Your task to perform on an android device: What's the weather going to be this weekend? Image 0: 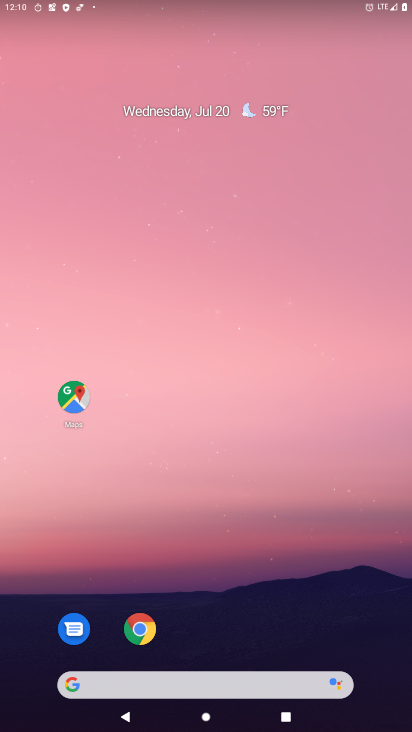
Step 0: drag from (223, 599) to (141, 79)
Your task to perform on an android device: What's the weather going to be this weekend? Image 1: 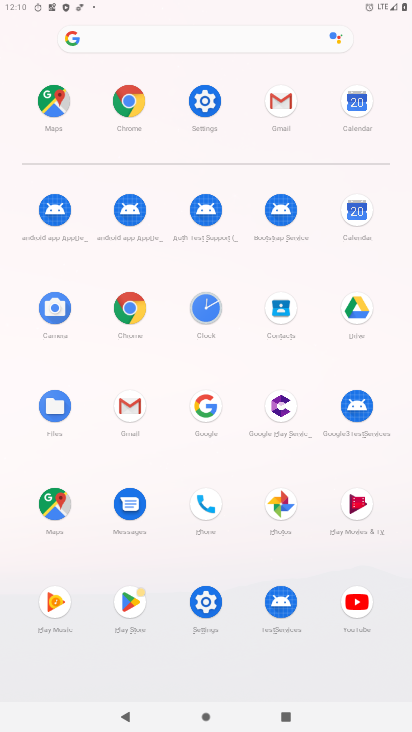
Step 1: click (204, 411)
Your task to perform on an android device: What's the weather going to be this weekend? Image 2: 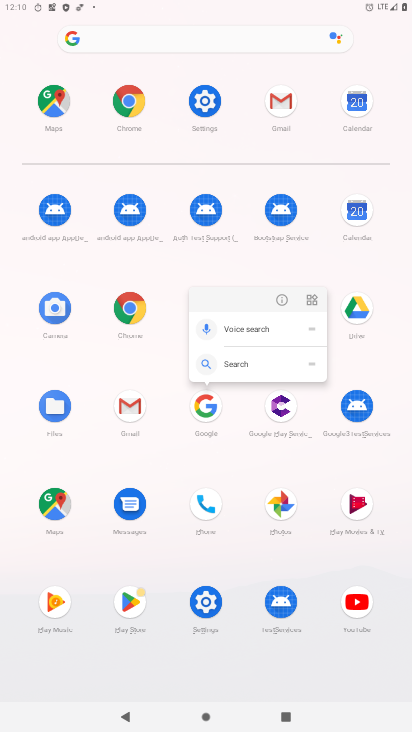
Step 2: click (204, 411)
Your task to perform on an android device: What's the weather going to be this weekend? Image 3: 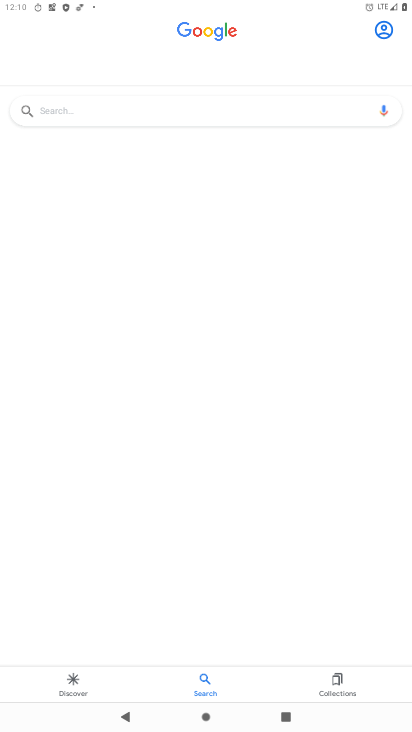
Step 3: drag from (179, 266) to (188, 541)
Your task to perform on an android device: What's the weather going to be this weekend? Image 4: 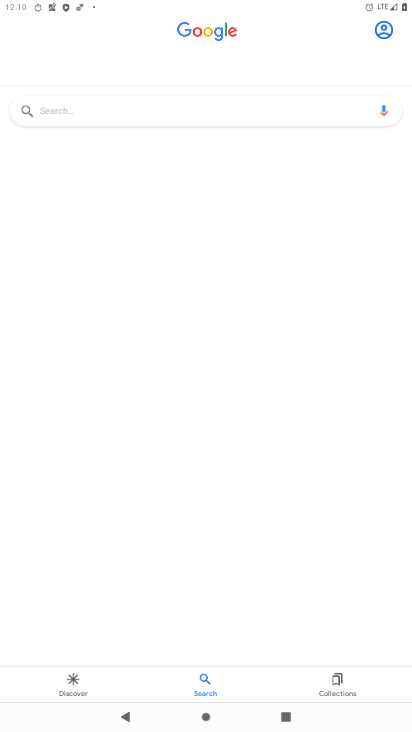
Step 4: click (125, 112)
Your task to perform on an android device: What's the weather going to be this weekend? Image 5: 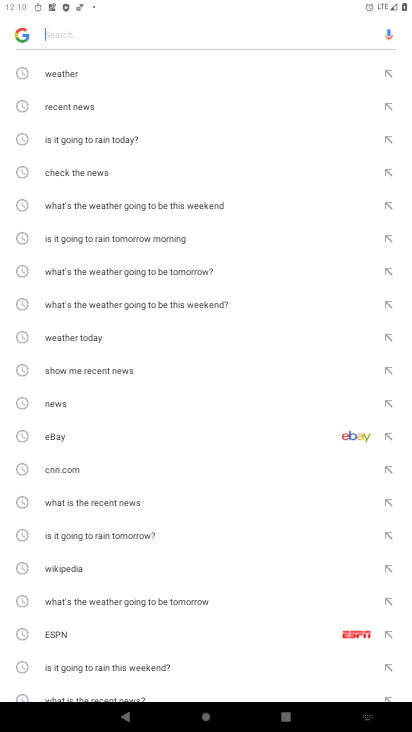
Step 5: click (65, 75)
Your task to perform on an android device: What's the weather going to be this weekend? Image 6: 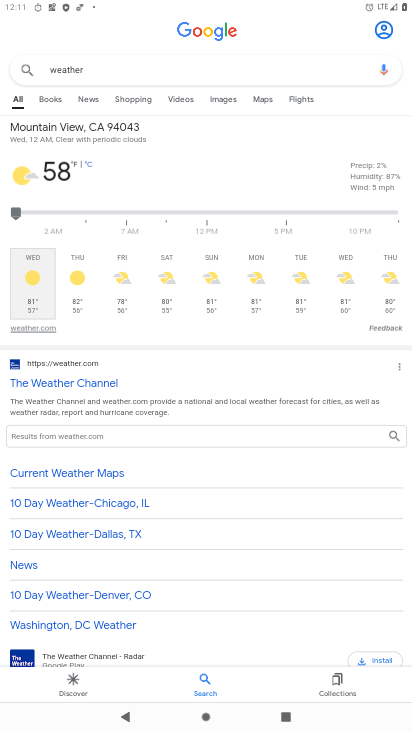
Step 6: task complete